Your task to perform on an android device: Search for the best custom wallets on Etsy. Image 0: 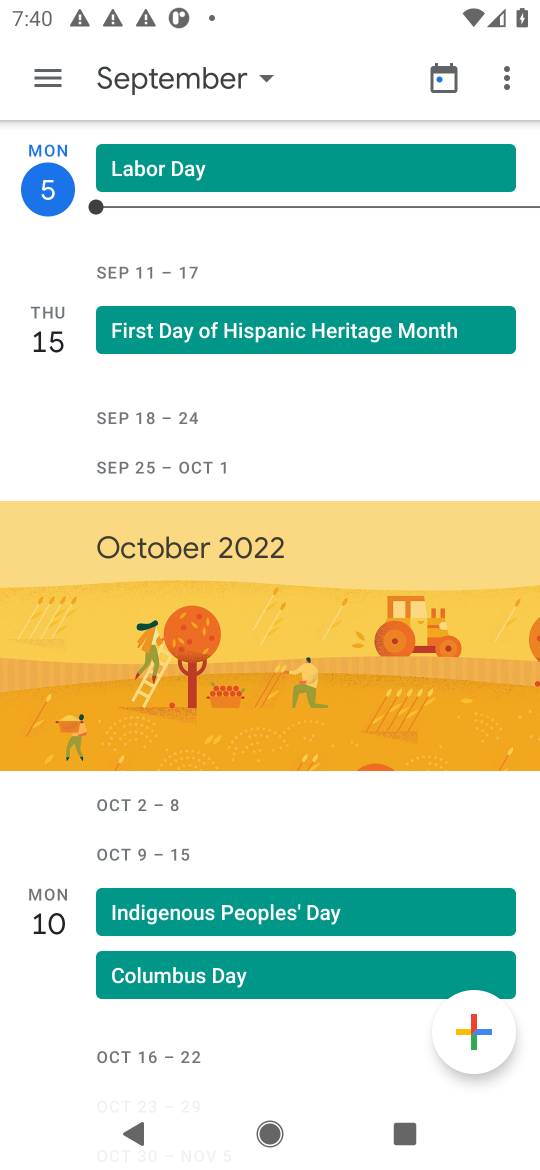
Step 0: press home button
Your task to perform on an android device: Search for the best custom wallets on Etsy. Image 1: 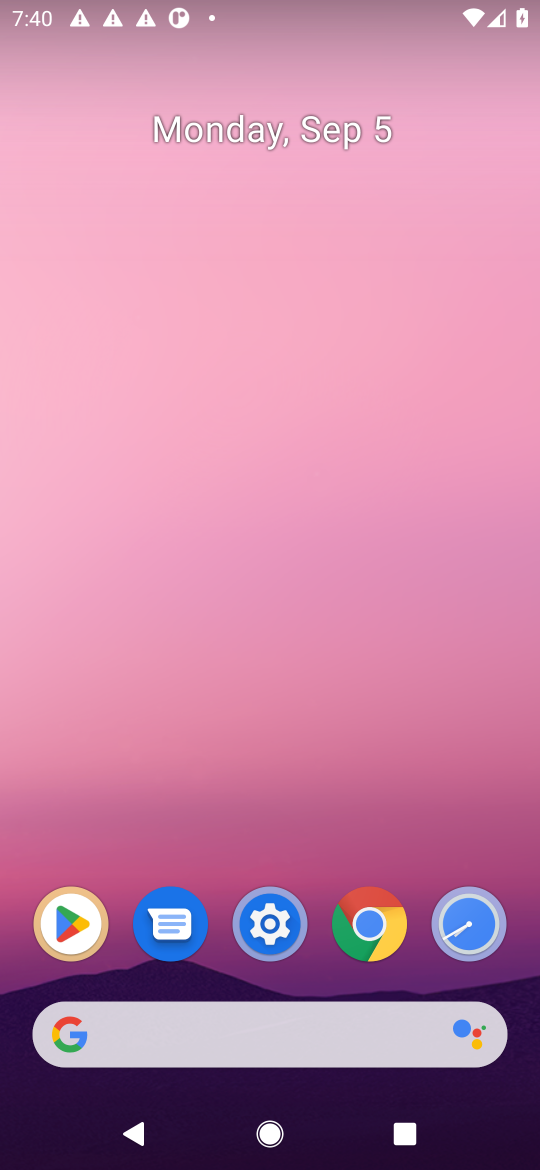
Step 1: click (383, 1032)
Your task to perform on an android device: Search for the best custom wallets on Etsy. Image 2: 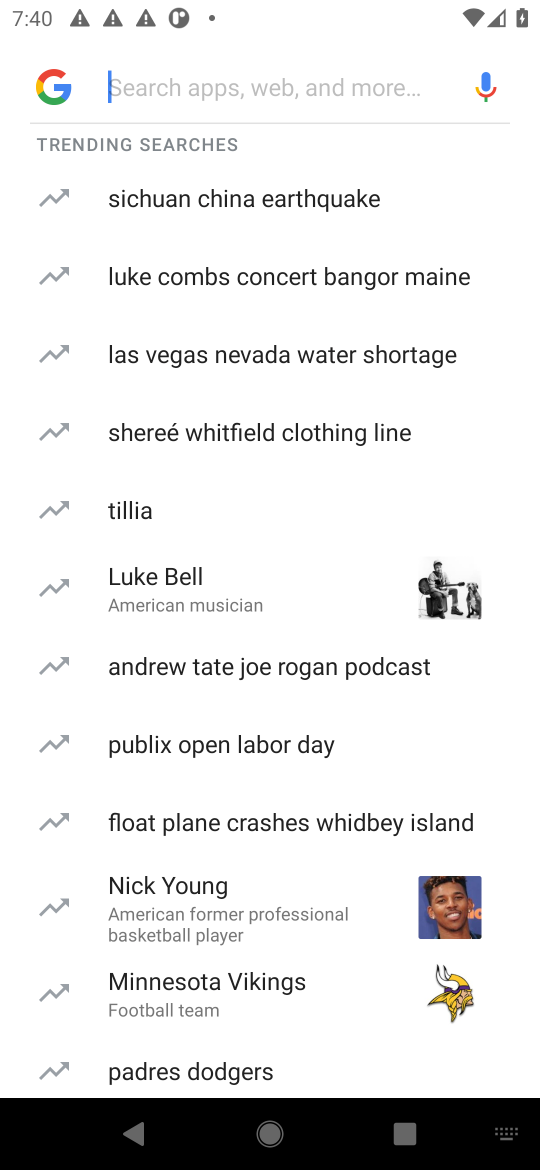
Step 2: press enter
Your task to perform on an android device: Search for the best custom wallets on Etsy. Image 3: 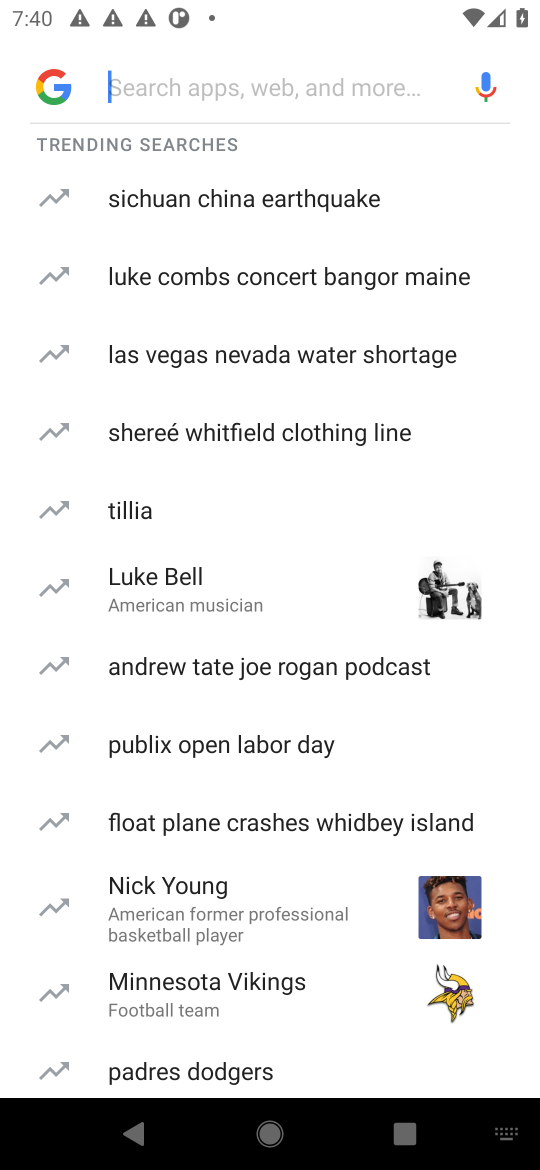
Step 3: type "etsy"
Your task to perform on an android device: Search for the best custom wallets on Etsy. Image 4: 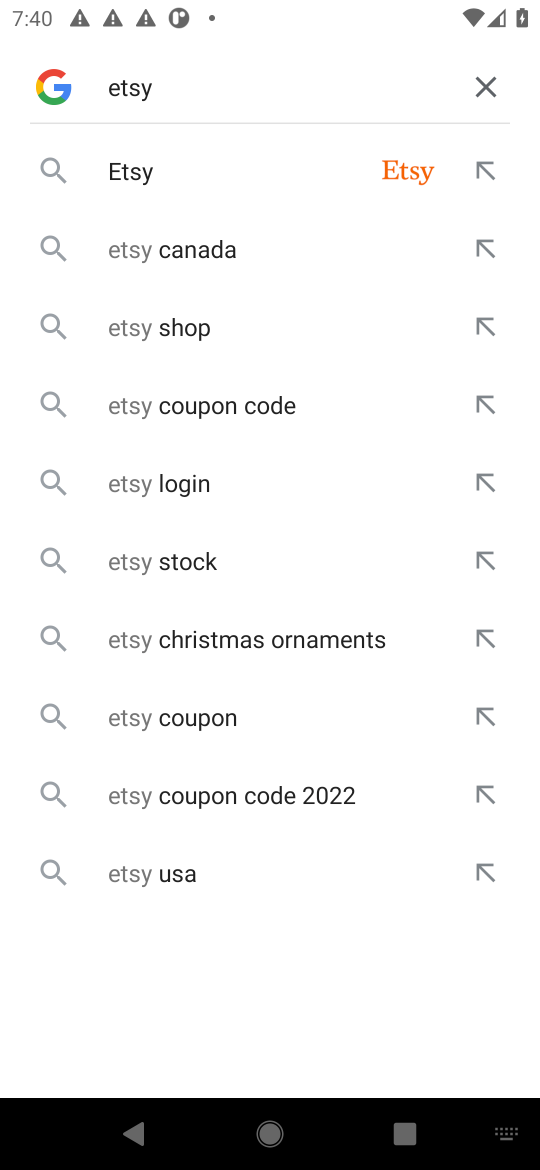
Step 4: click (248, 174)
Your task to perform on an android device: Search for the best custom wallets on Etsy. Image 5: 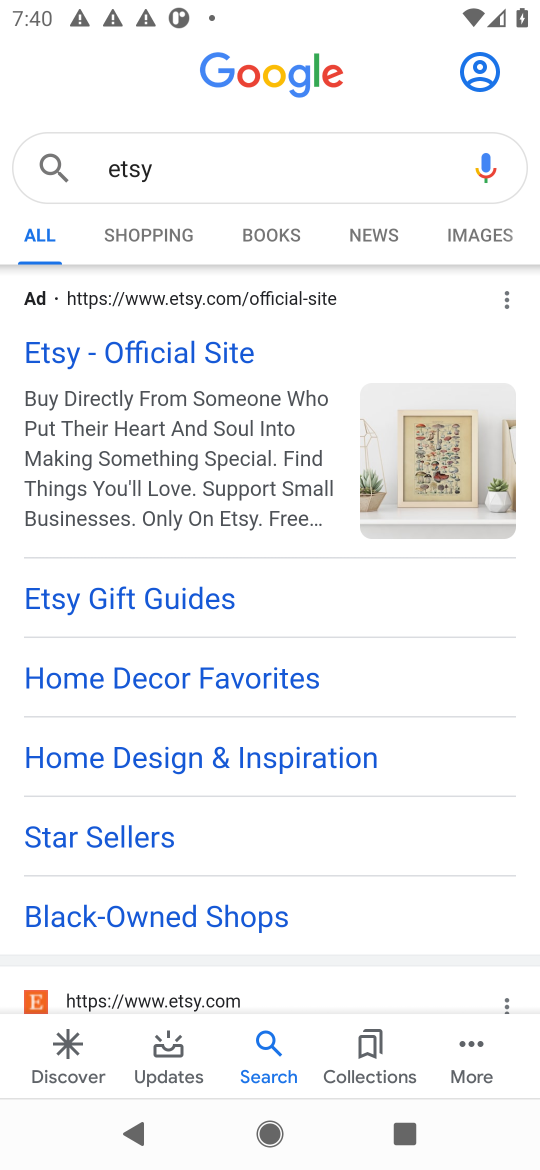
Step 5: click (158, 346)
Your task to perform on an android device: Search for the best custom wallets on Etsy. Image 6: 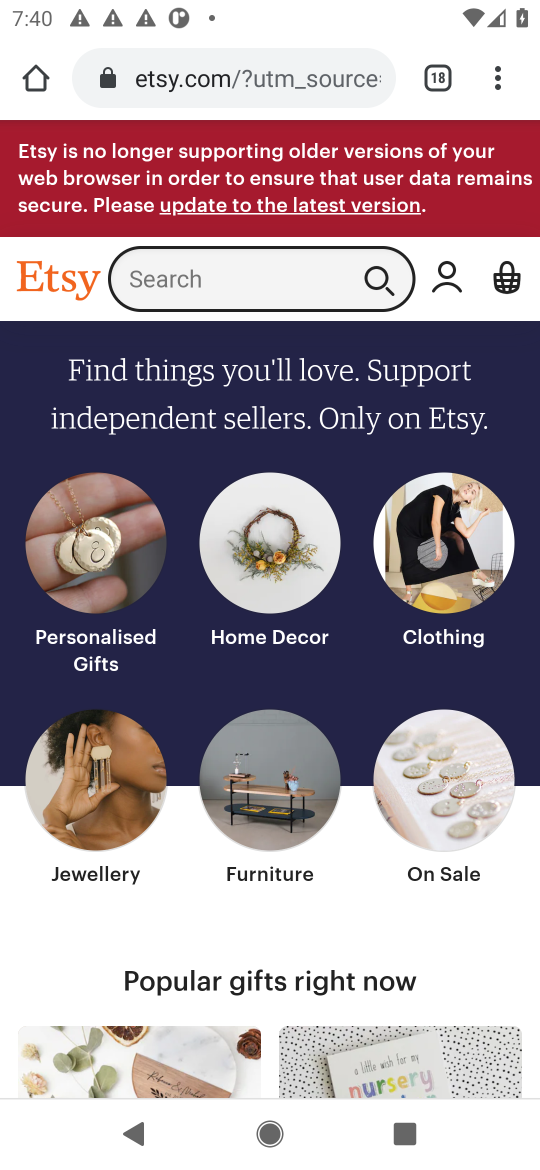
Step 6: click (158, 268)
Your task to perform on an android device: Search for the best custom wallets on Etsy. Image 7: 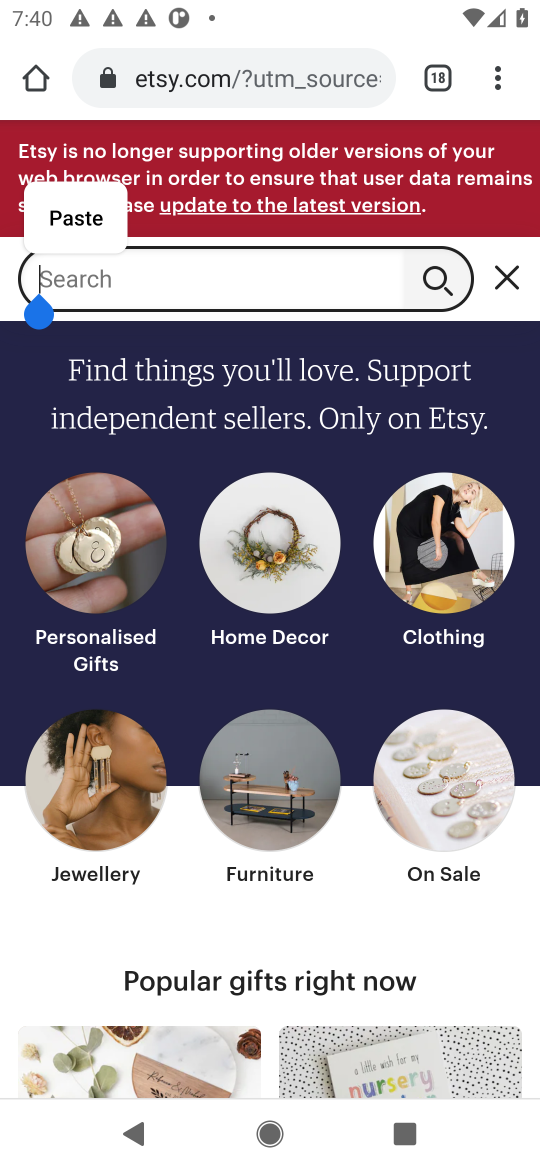
Step 7: type "best custom wallets"
Your task to perform on an android device: Search for the best custom wallets on Etsy. Image 8: 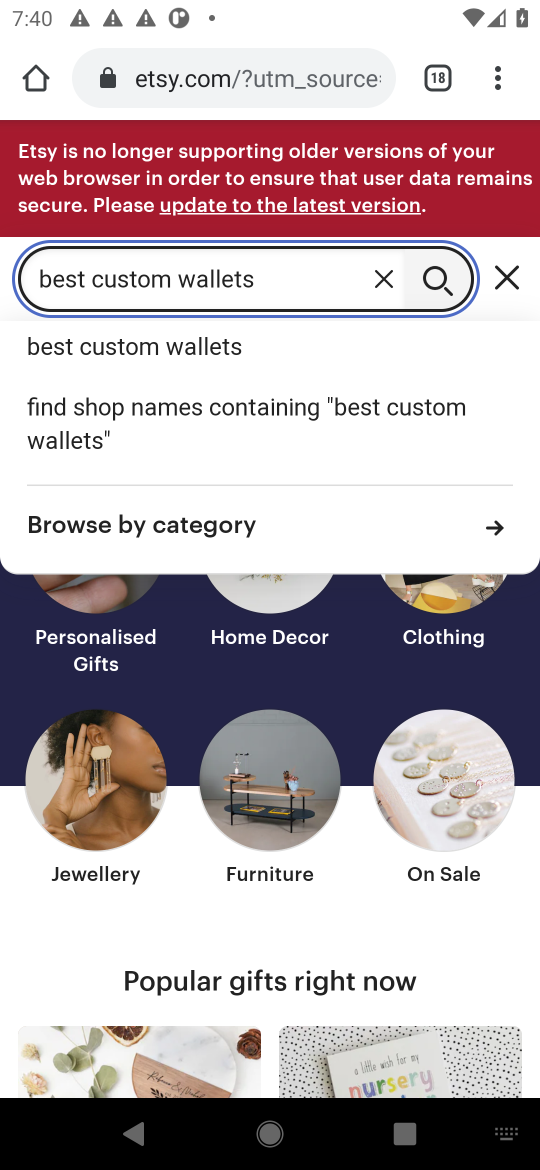
Step 8: click (204, 341)
Your task to perform on an android device: Search for the best custom wallets on Etsy. Image 9: 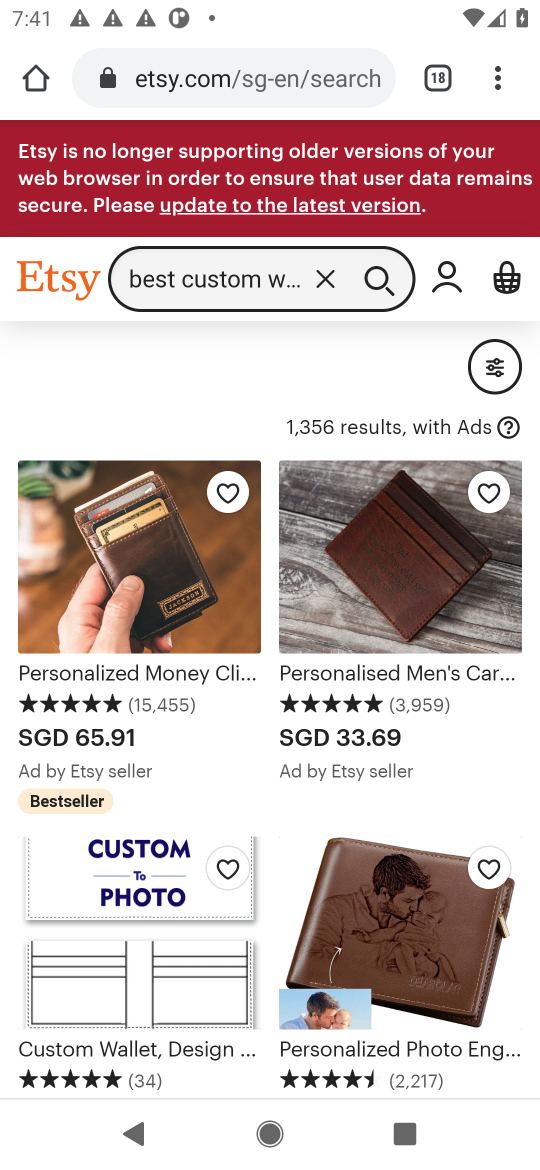
Step 9: task complete